Your task to perform on an android device: check storage Image 0: 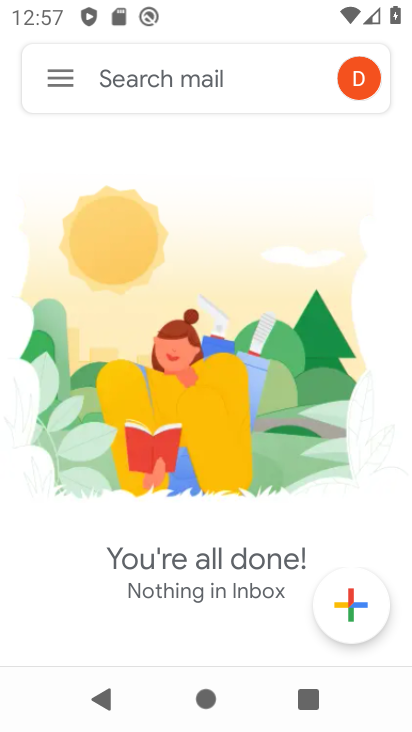
Step 0: press home button
Your task to perform on an android device: check storage Image 1: 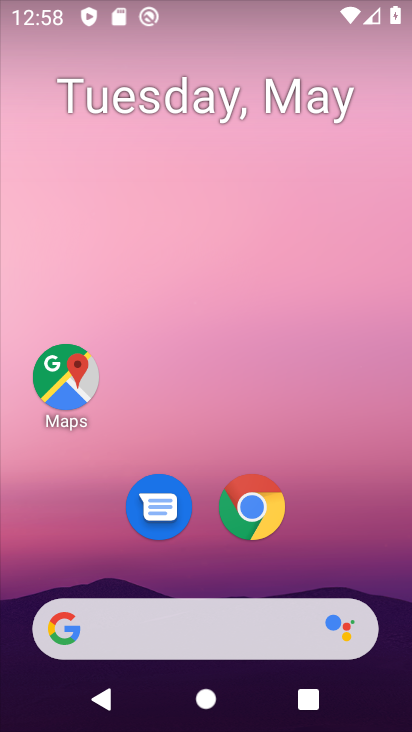
Step 1: drag from (400, 582) to (270, 199)
Your task to perform on an android device: check storage Image 2: 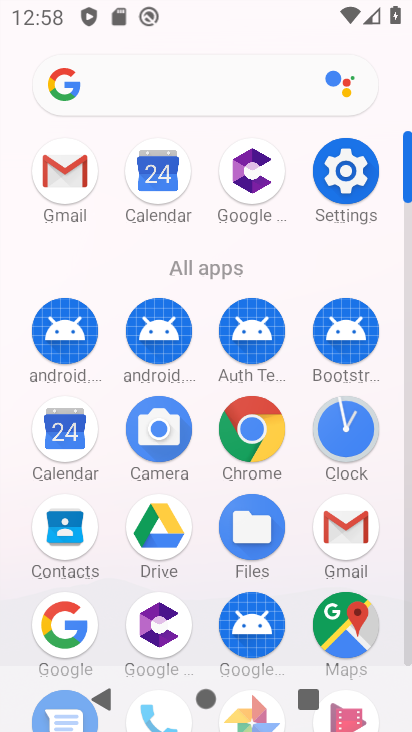
Step 2: click (355, 184)
Your task to perform on an android device: check storage Image 3: 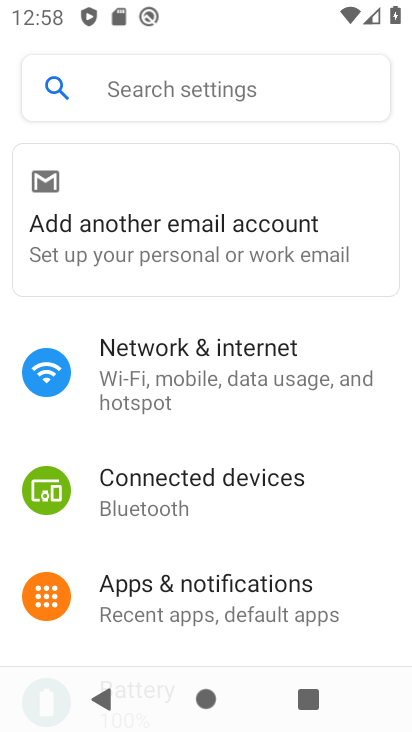
Step 3: drag from (250, 587) to (201, 90)
Your task to perform on an android device: check storage Image 4: 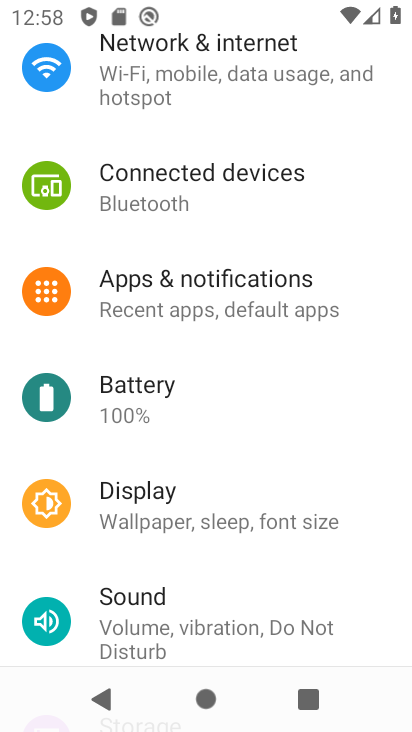
Step 4: drag from (204, 589) to (132, 147)
Your task to perform on an android device: check storage Image 5: 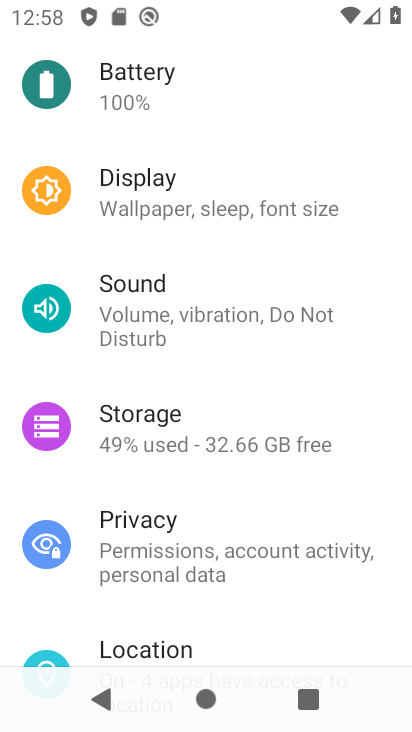
Step 5: click (179, 423)
Your task to perform on an android device: check storage Image 6: 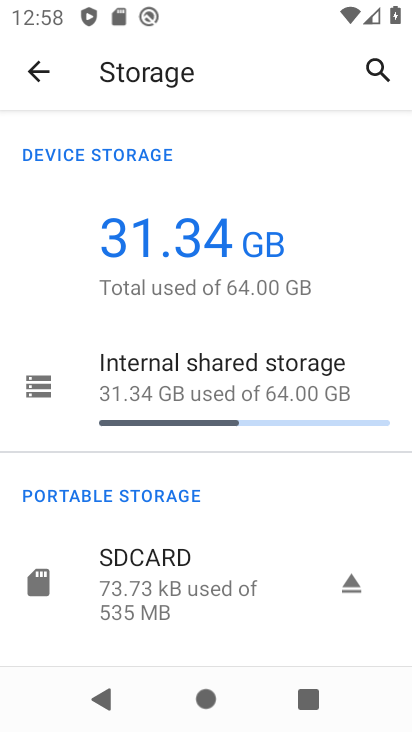
Step 6: task complete